Your task to perform on an android device: turn pop-ups off in chrome Image 0: 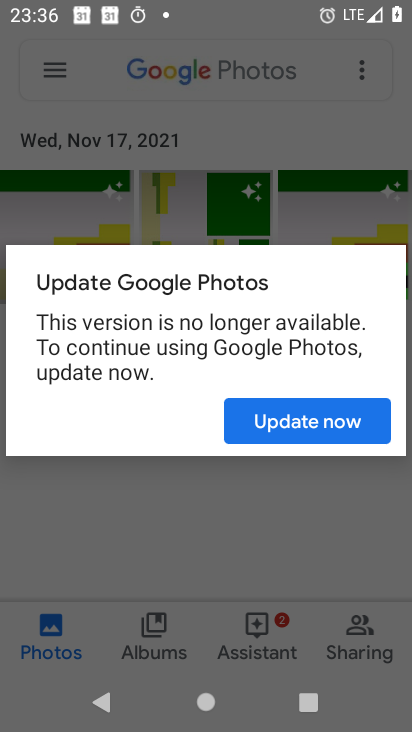
Step 0: press home button
Your task to perform on an android device: turn pop-ups off in chrome Image 1: 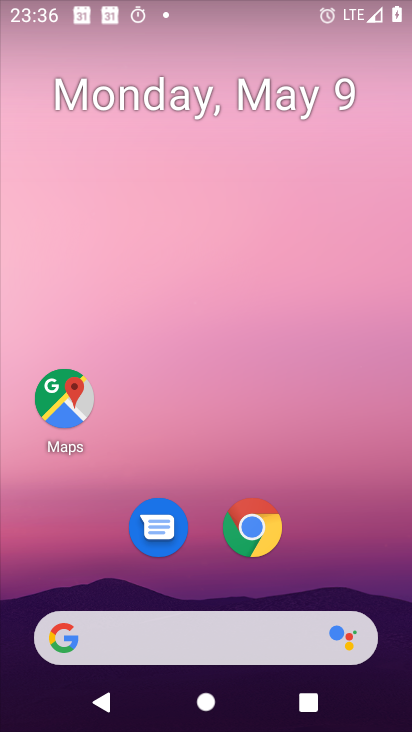
Step 1: click (253, 529)
Your task to perform on an android device: turn pop-ups off in chrome Image 2: 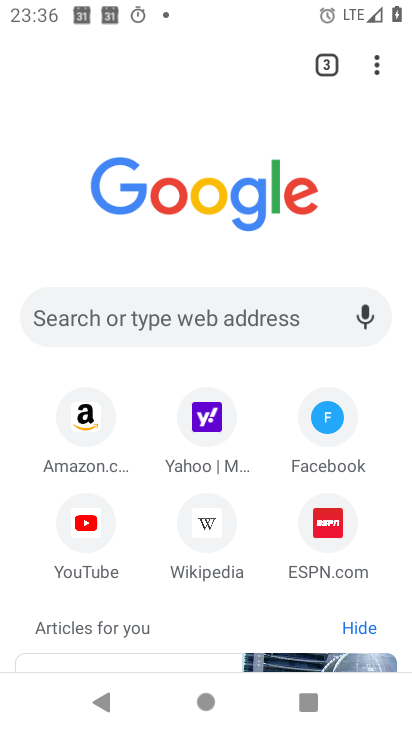
Step 2: click (365, 68)
Your task to perform on an android device: turn pop-ups off in chrome Image 3: 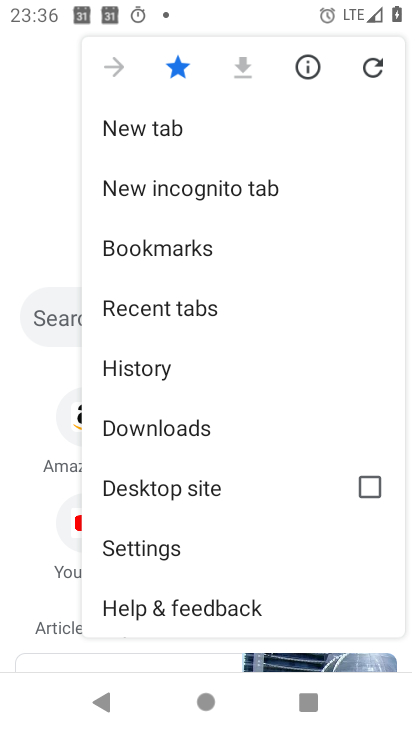
Step 3: drag from (224, 591) to (227, 377)
Your task to perform on an android device: turn pop-ups off in chrome Image 4: 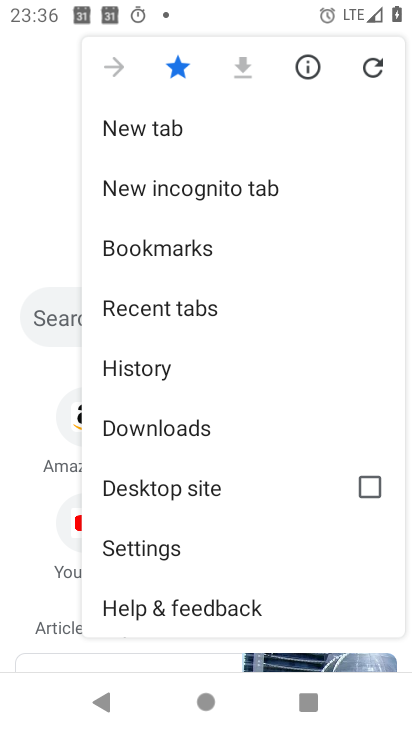
Step 4: click (189, 541)
Your task to perform on an android device: turn pop-ups off in chrome Image 5: 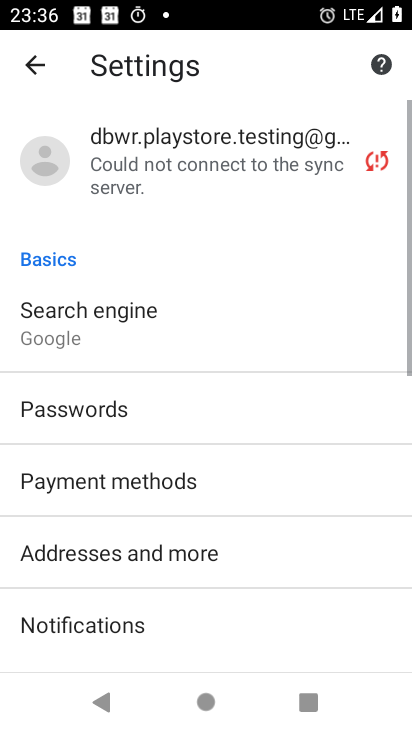
Step 5: drag from (237, 537) to (230, 123)
Your task to perform on an android device: turn pop-ups off in chrome Image 6: 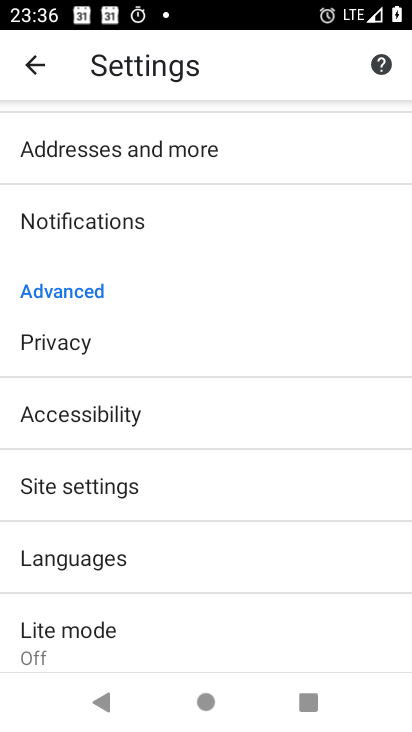
Step 6: drag from (155, 608) to (153, 422)
Your task to perform on an android device: turn pop-ups off in chrome Image 7: 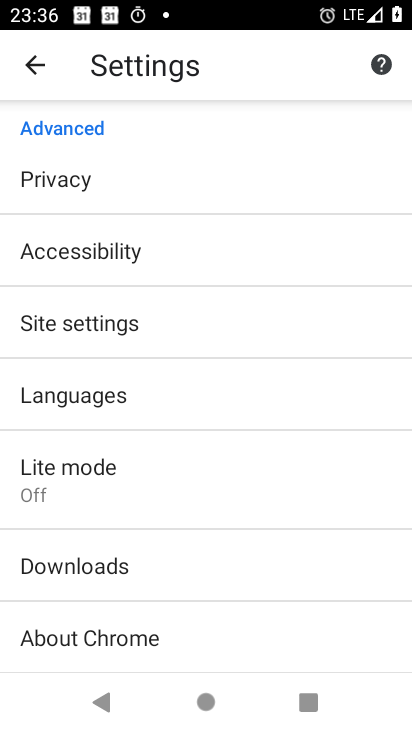
Step 7: click (102, 312)
Your task to perform on an android device: turn pop-ups off in chrome Image 8: 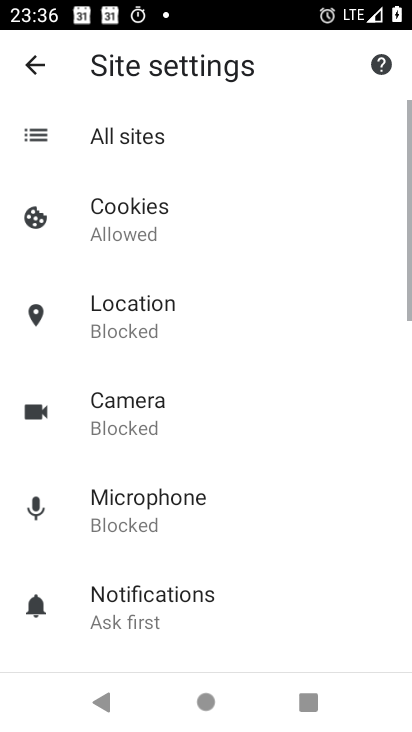
Step 8: drag from (205, 584) to (275, 96)
Your task to perform on an android device: turn pop-ups off in chrome Image 9: 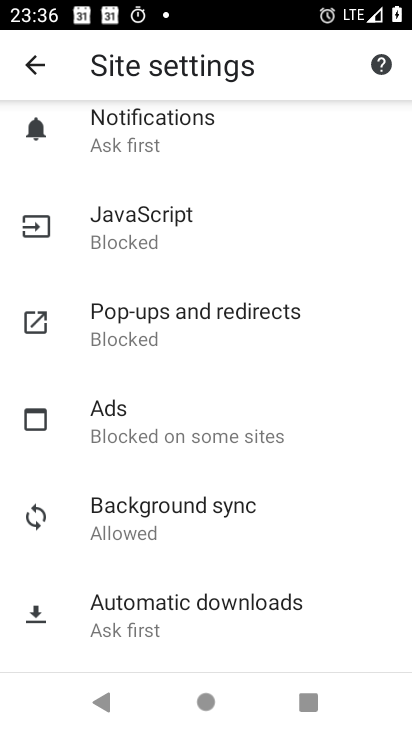
Step 9: click (169, 319)
Your task to perform on an android device: turn pop-ups off in chrome Image 10: 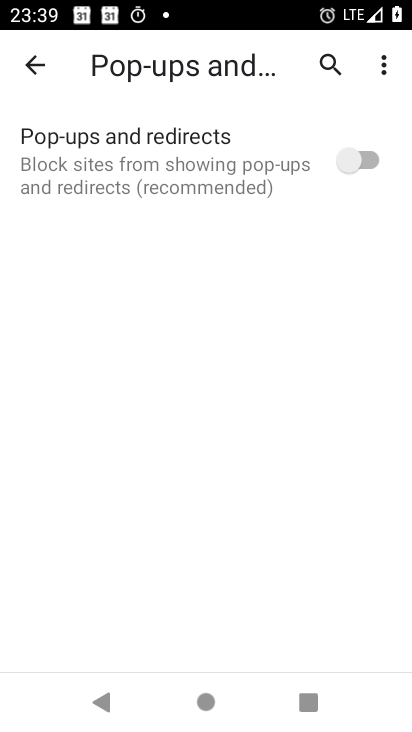
Step 10: task complete